Your task to perform on an android device: Search for seafood restaurants on Google Maps Image 0: 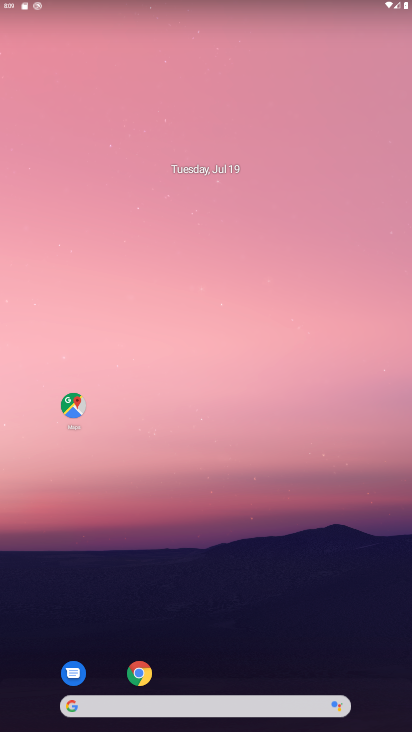
Step 0: drag from (166, 691) to (172, 124)
Your task to perform on an android device: Search for seafood restaurants on Google Maps Image 1: 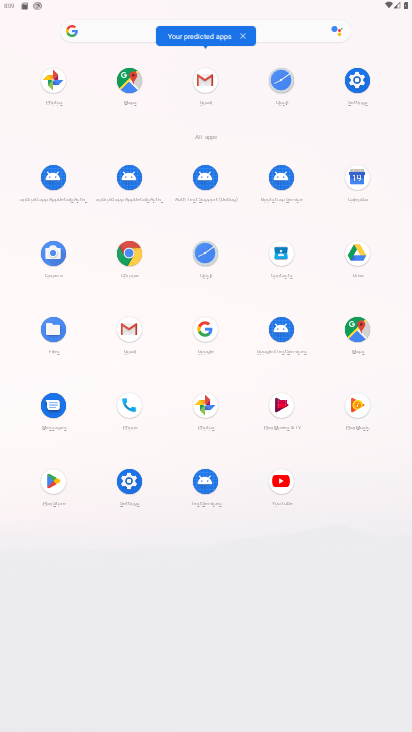
Step 1: click (353, 330)
Your task to perform on an android device: Search for seafood restaurants on Google Maps Image 2: 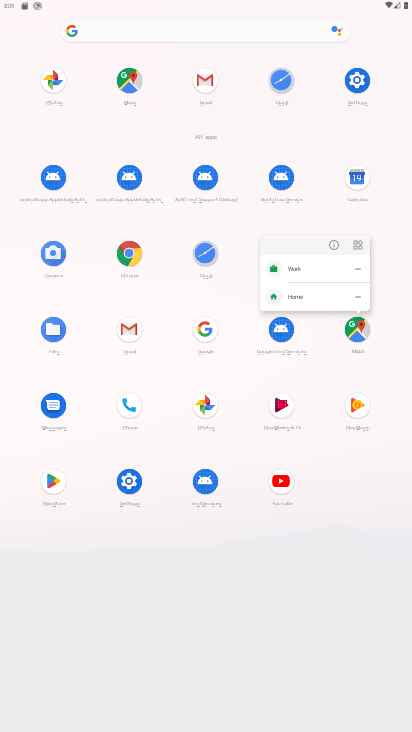
Step 2: click (353, 330)
Your task to perform on an android device: Search for seafood restaurants on Google Maps Image 3: 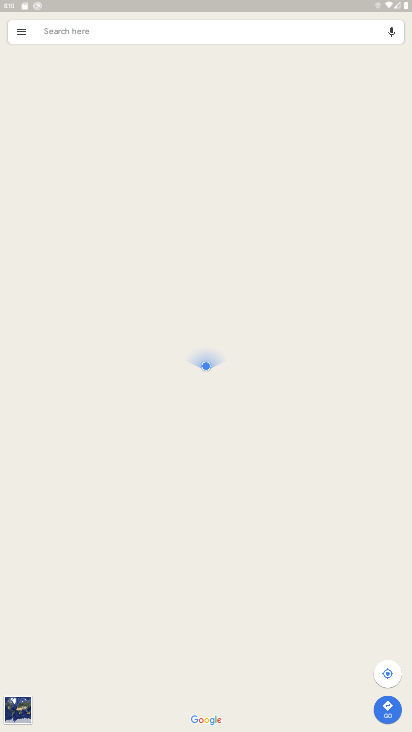
Step 3: click (239, 31)
Your task to perform on an android device: Search for seafood restaurants on Google Maps Image 4: 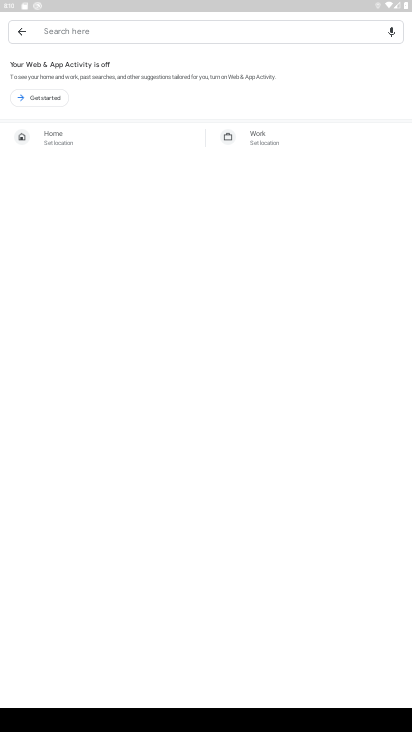
Step 4: type "seafood restaurant"
Your task to perform on an android device: Search for seafood restaurants on Google Maps Image 5: 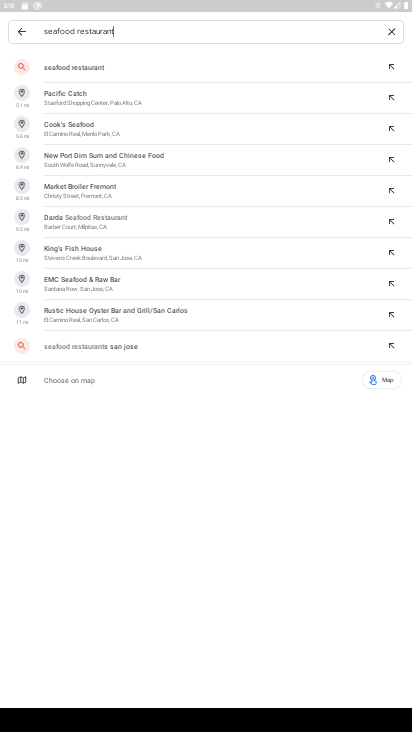
Step 5: click (135, 70)
Your task to perform on an android device: Search for seafood restaurants on Google Maps Image 6: 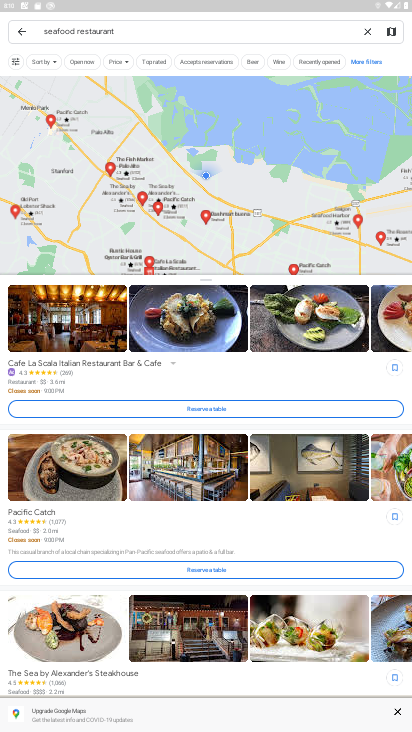
Step 6: task complete